Your task to perform on an android device: Open Google Image 0: 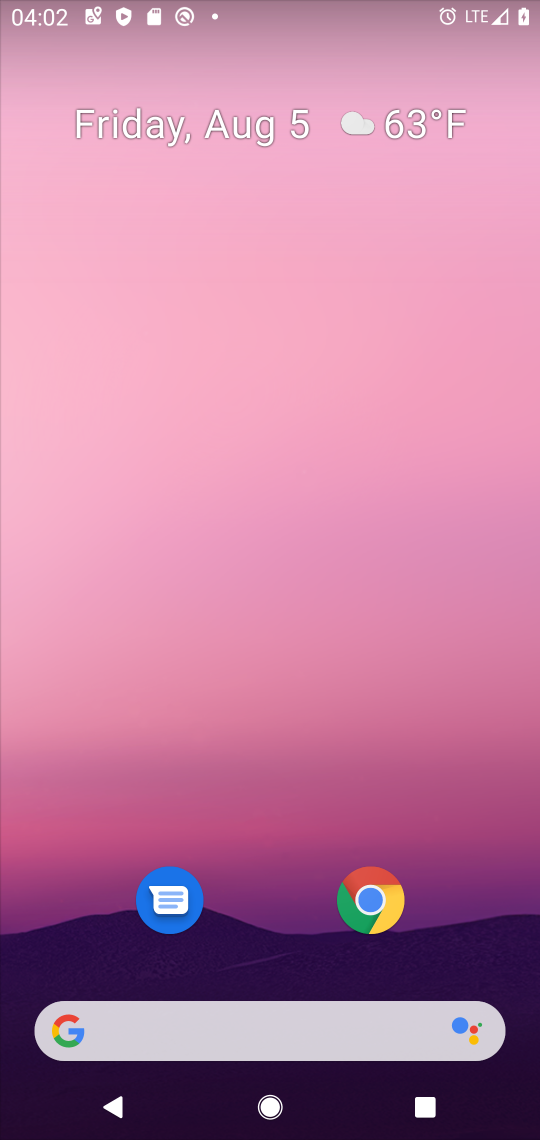
Step 0: drag from (299, 889) to (362, 129)
Your task to perform on an android device: Open Google Image 1: 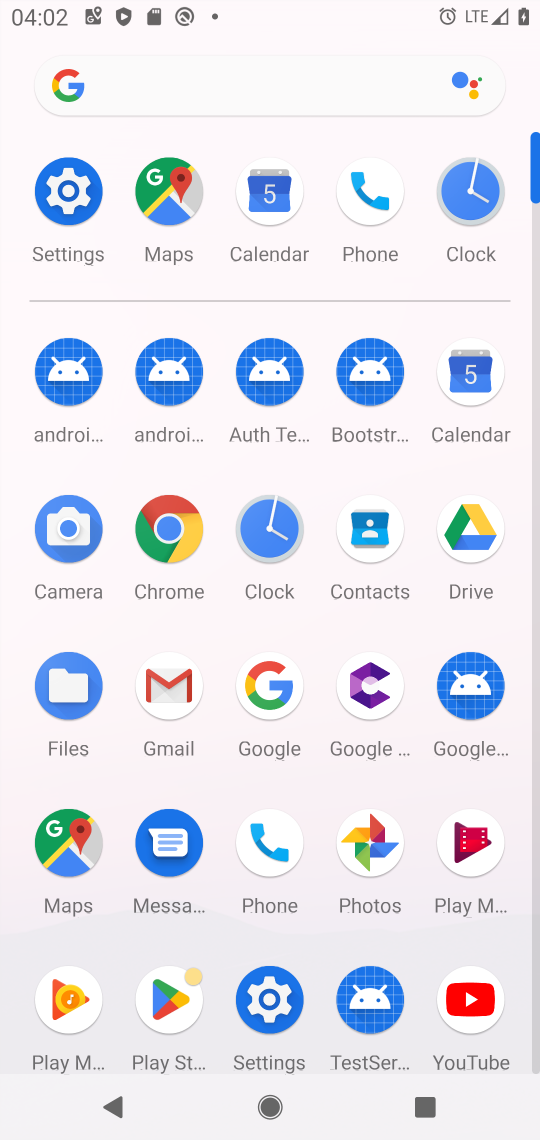
Step 1: click (274, 687)
Your task to perform on an android device: Open Google Image 2: 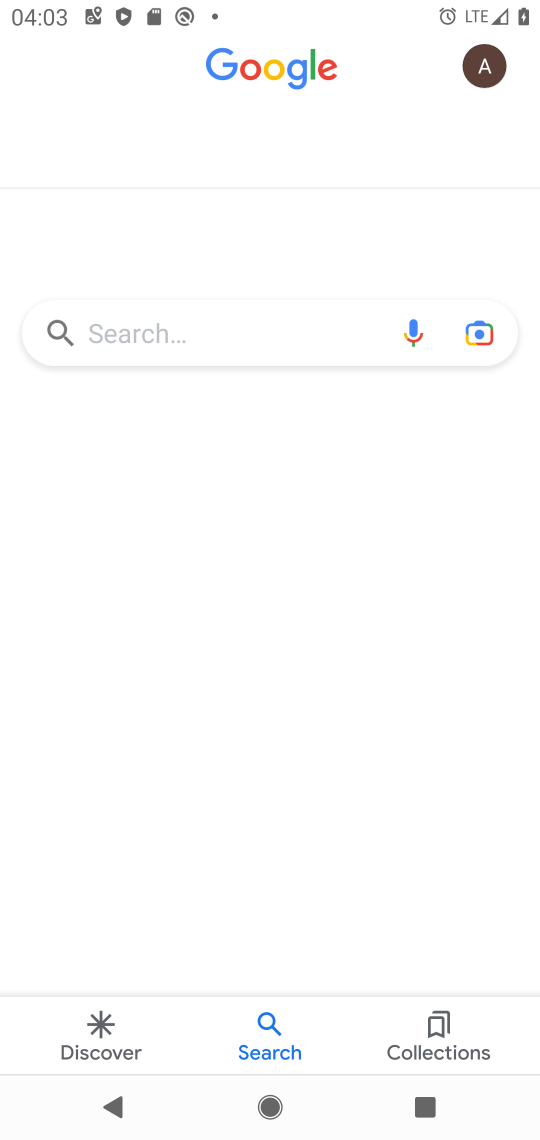
Step 2: task complete